Your task to perform on an android device: Is it going to rain today? Image 0: 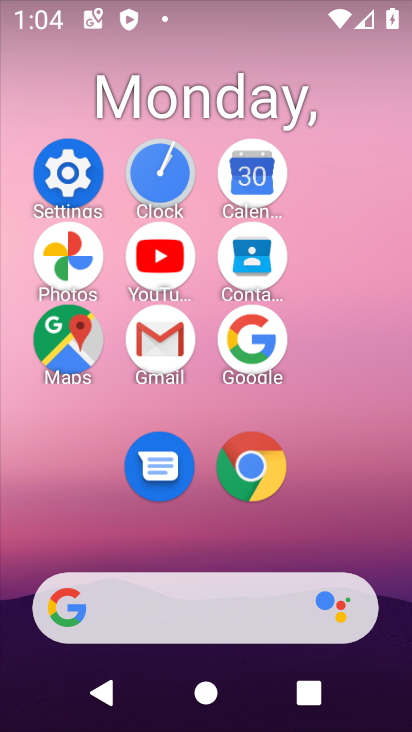
Step 0: click (269, 336)
Your task to perform on an android device: Is it going to rain today? Image 1: 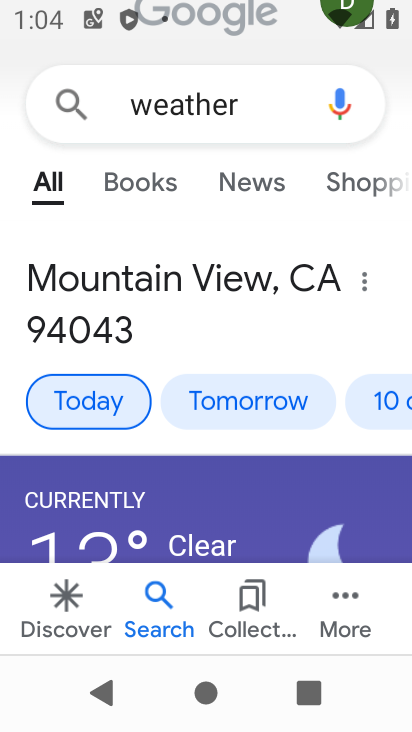
Step 1: click (278, 119)
Your task to perform on an android device: Is it going to rain today? Image 2: 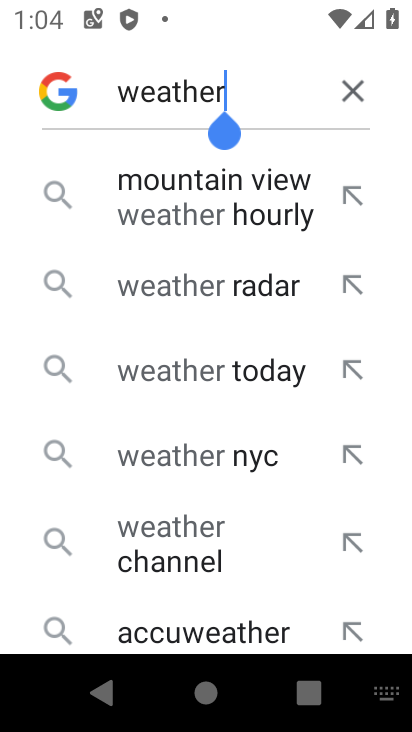
Step 2: click (350, 72)
Your task to perform on an android device: Is it going to rain today? Image 3: 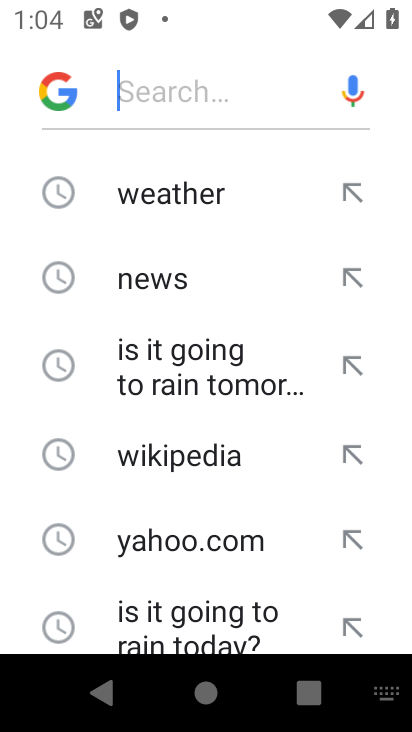
Step 3: click (140, 201)
Your task to perform on an android device: Is it going to rain today? Image 4: 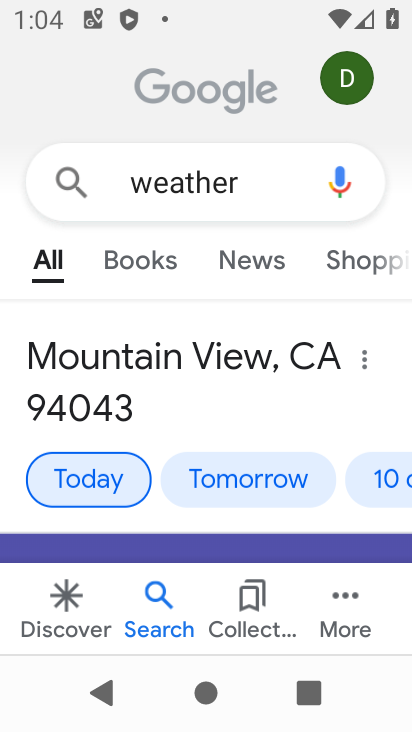
Step 4: task complete